Your task to perform on an android device: Open the Play Movies app and select the watchlist tab. Image 0: 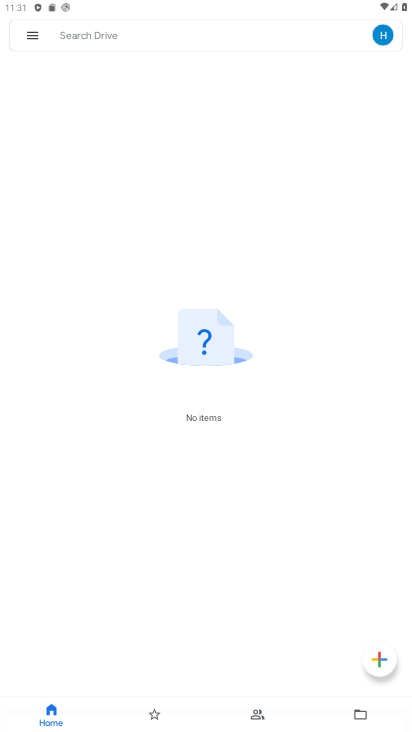
Step 0: press home button
Your task to perform on an android device: Open the Play Movies app and select the watchlist tab. Image 1: 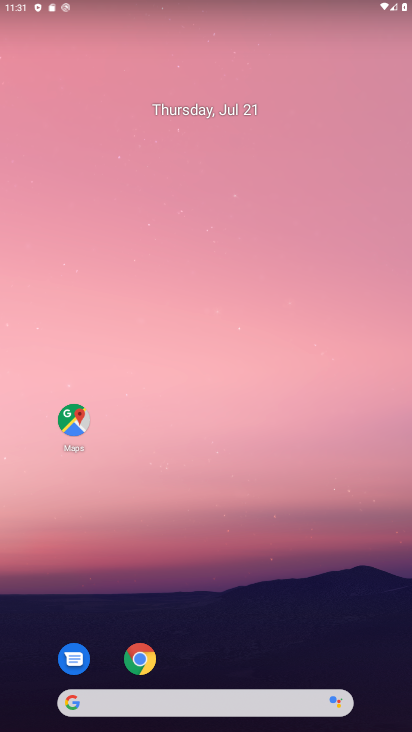
Step 1: drag from (245, 643) to (270, 77)
Your task to perform on an android device: Open the Play Movies app and select the watchlist tab. Image 2: 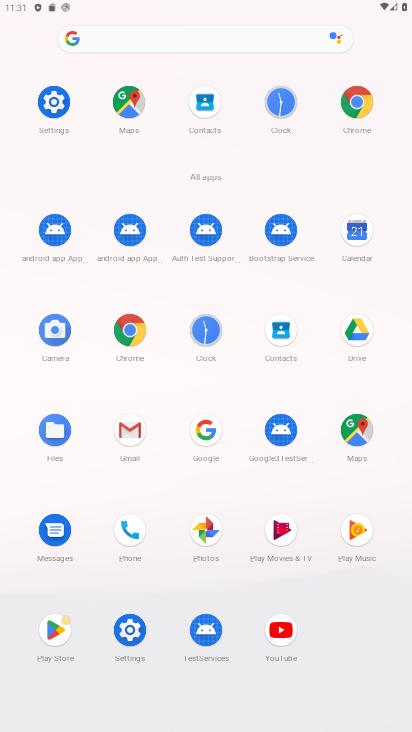
Step 2: click (298, 534)
Your task to perform on an android device: Open the Play Movies app and select the watchlist tab. Image 3: 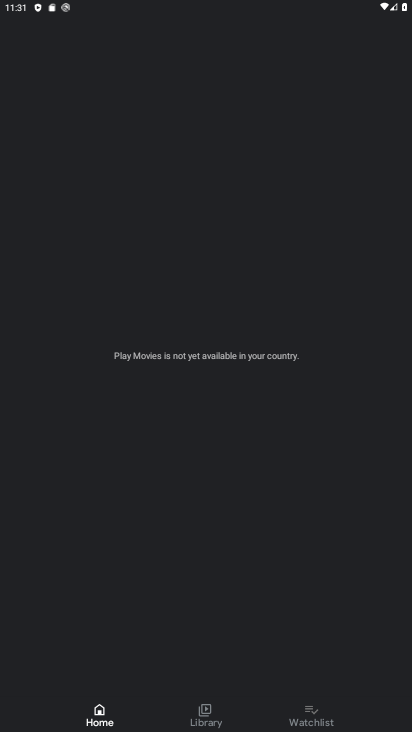
Step 3: click (317, 722)
Your task to perform on an android device: Open the Play Movies app and select the watchlist tab. Image 4: 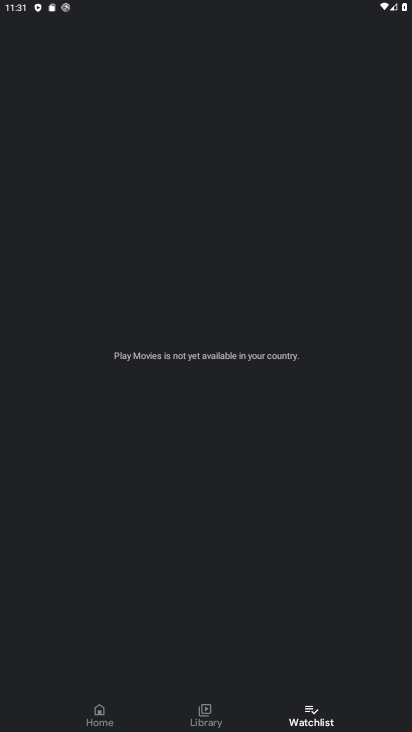
Step 4: task complete